Your task to perform on an android device: toggle data saver in the chrome app Image 0: 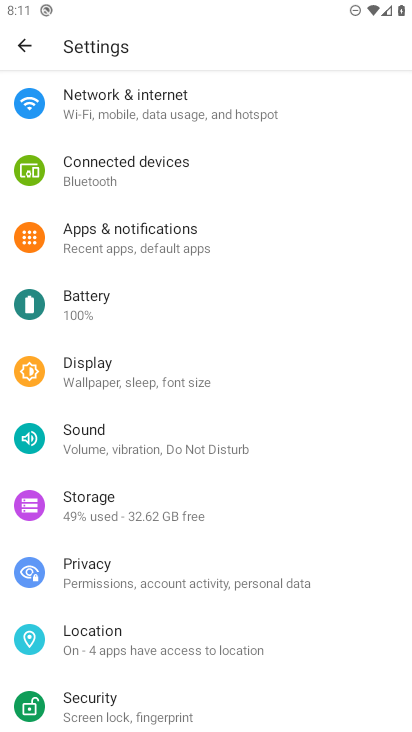
Step 0: press home button
Your task to perform on an android device: toggle data saver in the chrome app Image 1: 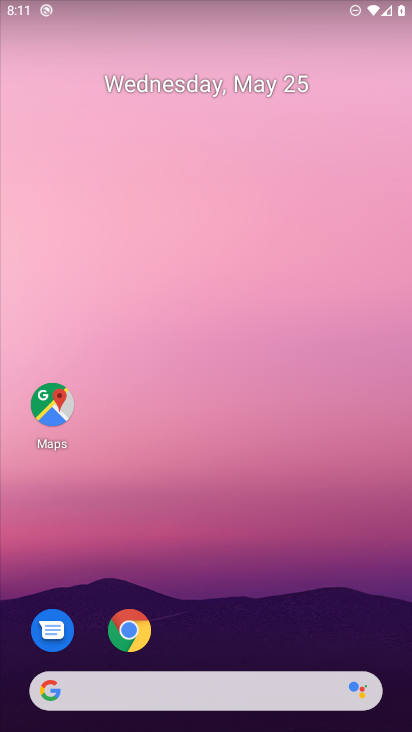
Step 1: click (134, 635)
Your task to perform on an android device: toggle data saver in the chrome app Image 2: 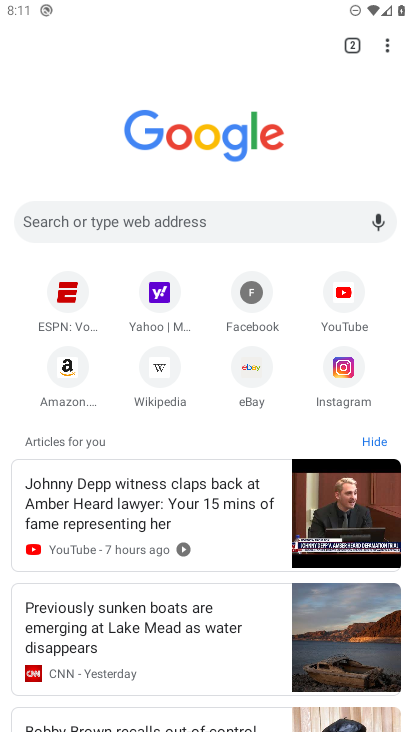
Step 2: click (380, 49)
Your task to perform on an android device: toggle data saver in the chrome app Image 3: 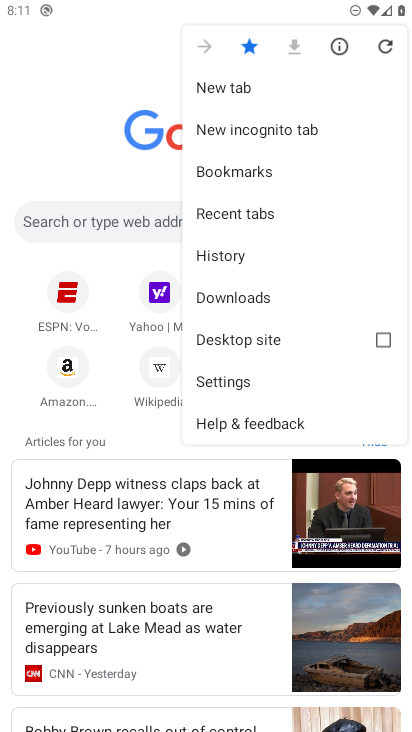
Step 3: click (244, 377)
Your task to perform on an android device: toggle data saver in the chrome app Image 4: 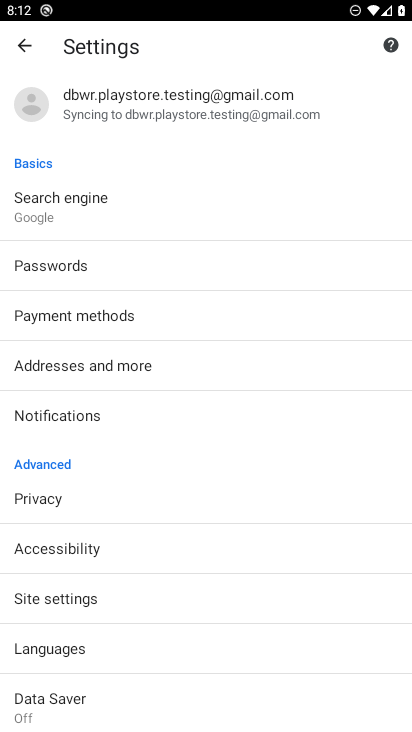
Step 4: click (61, 696)
Your task to perform on an android device: toggle data saver in the chrome app Image 5: 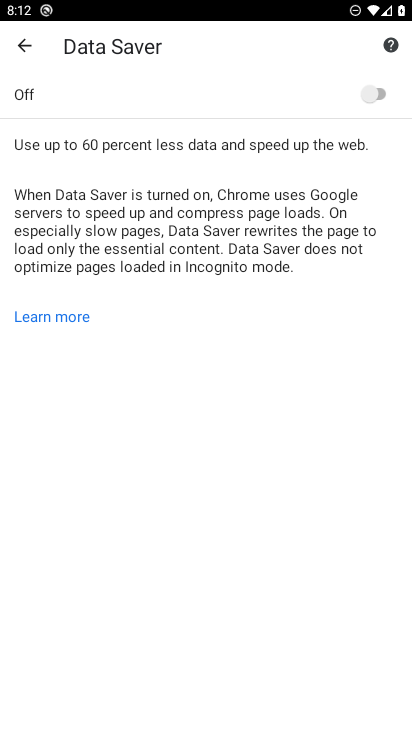
Step 5: click (372, 92)
Your task to perform on an android device: toggle data saver in the chrome app Image 6: 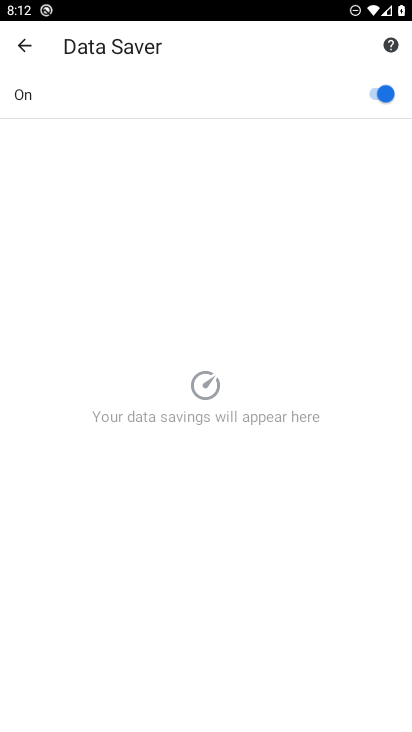
Step 6: task complete